Your task to perform on an android device: Open the calendar app, open the side menu, and click the "Day" option Image 0: 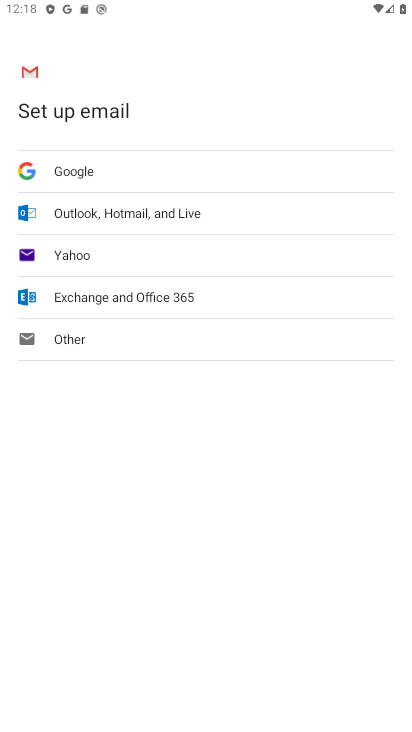
Step 0: press home button
Your task to perform on an android device: Open the calendar app, open the side menu, and click the "Day" option Image 1: 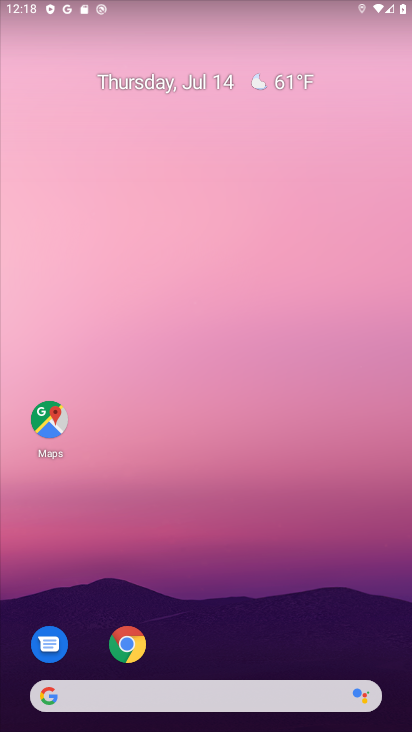
Step 1: drag from (157, 656) to (295, 130)
Your task to perform on an android device: Open the calendar app, open the side menu, and click the "Day" option Image 2: 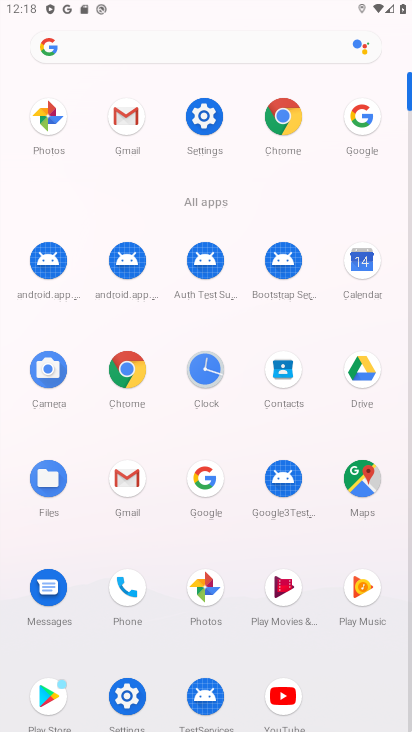
Step 2: click (368, 266)
Your task to perform on an android device: Open the calendar app, open the side menu, and click the "Day" option Image 3: 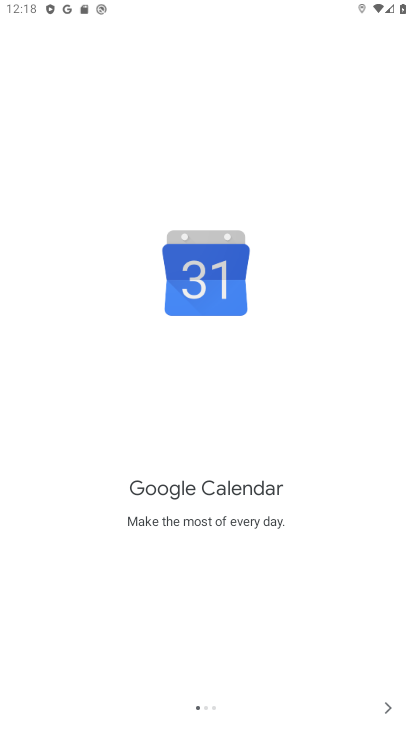
Step 3: click (383, 716)
Your task to perform on an android device: Open the calendar app, open the side menu, and click the "Day" option Image 4: 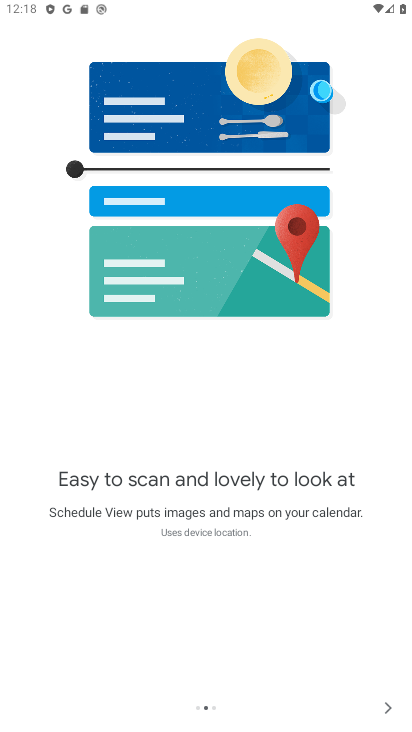
Step 4: click (383, 716)
Your task to perform on an android device: Open the calendar app, open the side menu, and click the "Day" option Image 5: 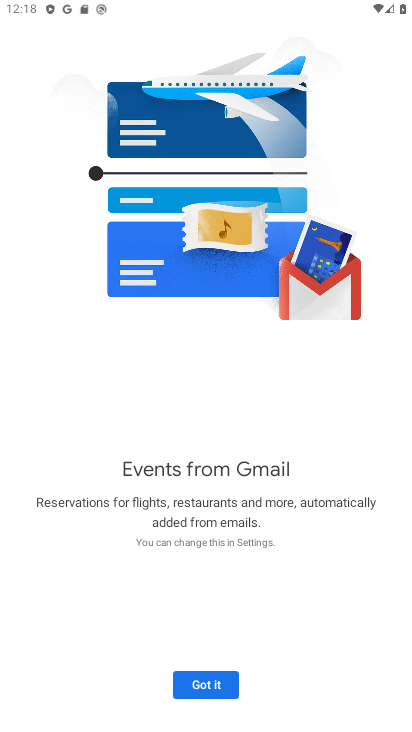
Step 5: click (220, 691)
Your task to perform on an android device: Open the calendar app, open the side menu, and click the "Day" option Image 6: 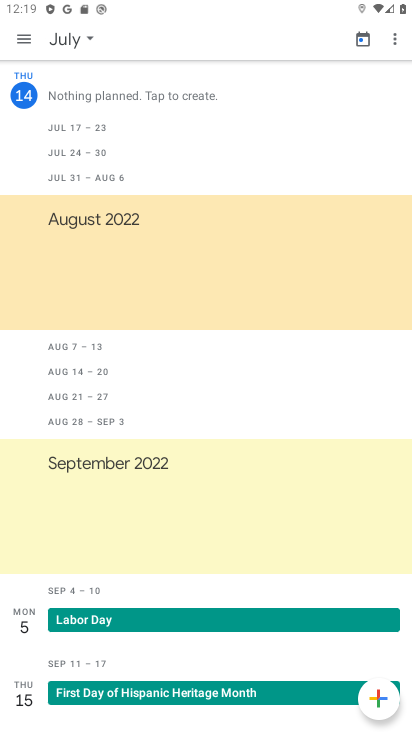
Step 6: click (23, 35)
Your task to perform on an android device: Open the calendar app, open the side menu, and click the "Day" option Image 7: 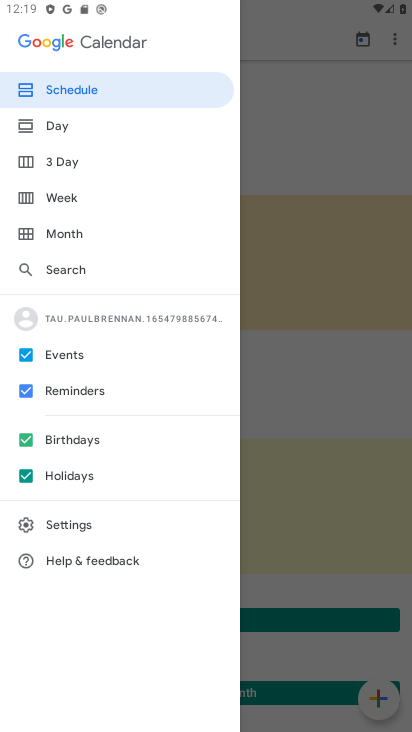
Step 7: click (52, 122)
Your task to perform on an android device: Open the calendar app, open the side menu, and click the "Day" option Image 8: 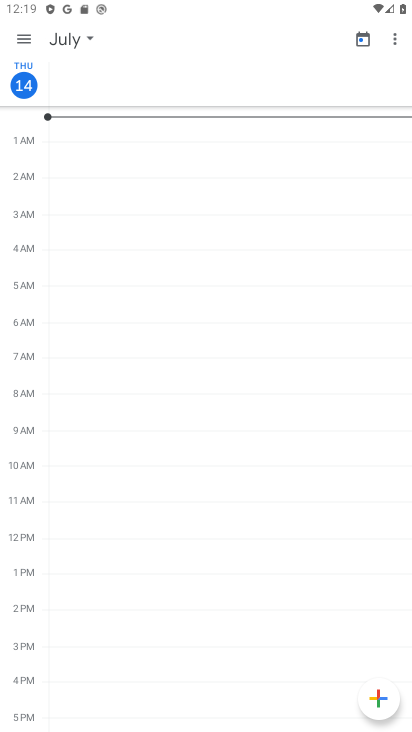
Step 8: task complete